Your task to perform on an android device: Open settings on Google Maps Image 0: 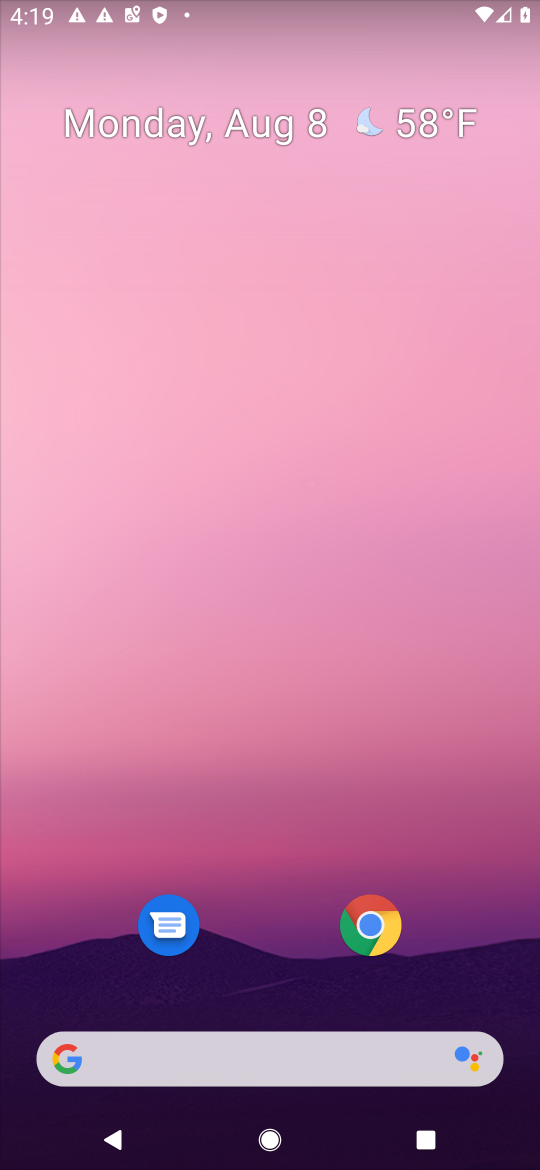
Step 0: drag from (279, 823) to (229, 170)
Your task to perform on an android device: Open settings on Google Maps Image 1: 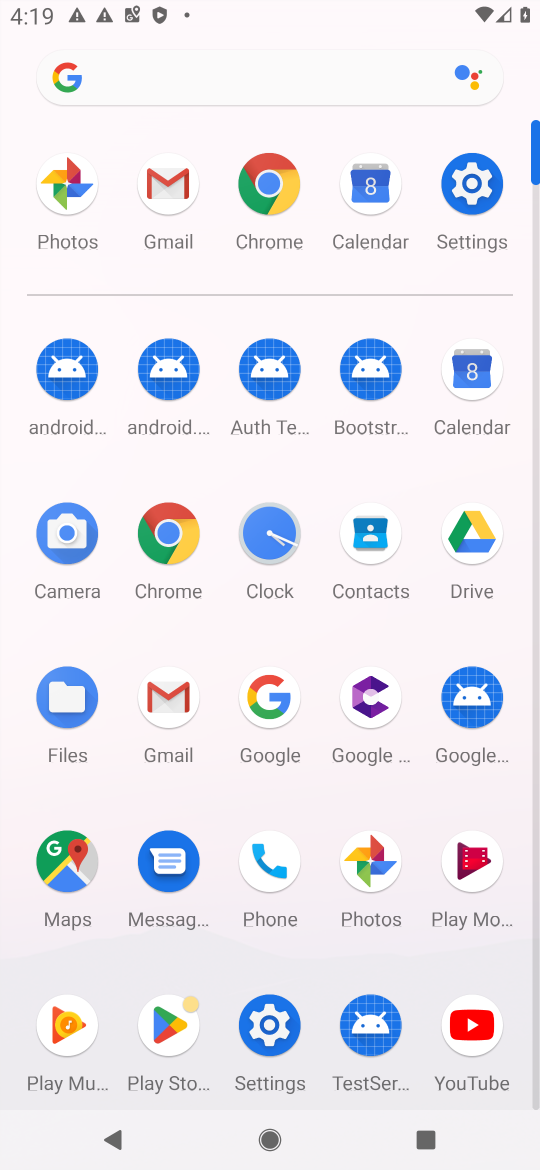
Step 1: click (78, 862)
Your task to perform on an android device: Open settings on Google Maps Image 2: 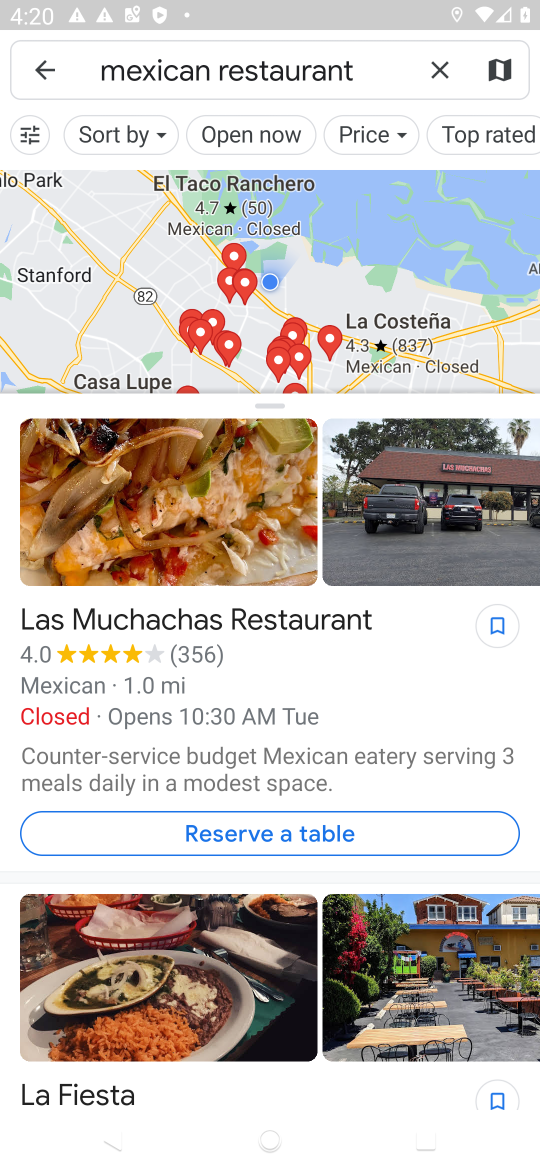
Step 2: click (47, 76)
Your task to perform on an android device: Open settings on Google Maps Image 3: 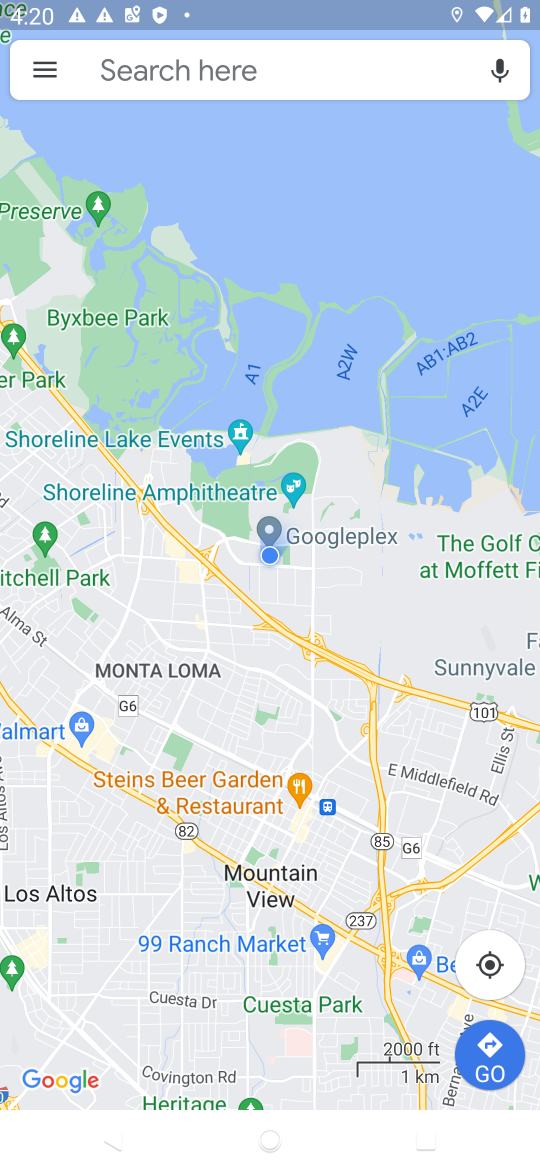
Step 3: click (46, 75)
Your task to perform on an android device: Open settings on Google Maps Image 4: 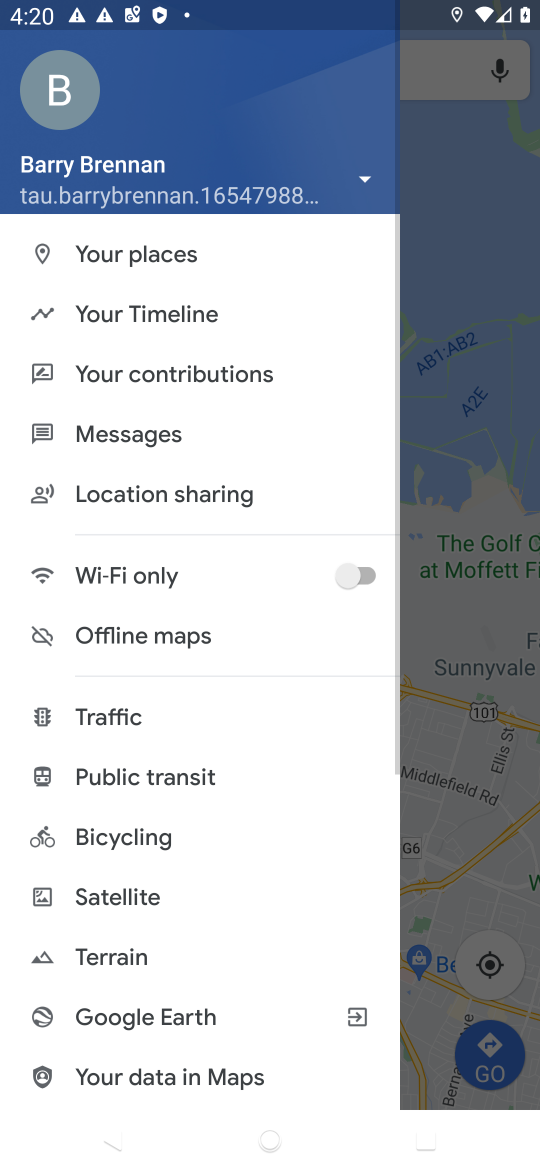
Step 4: drag from (137, 1040) to (178, 459)
Your task to perform on an android device: Open settings on Google Maps Image 5: 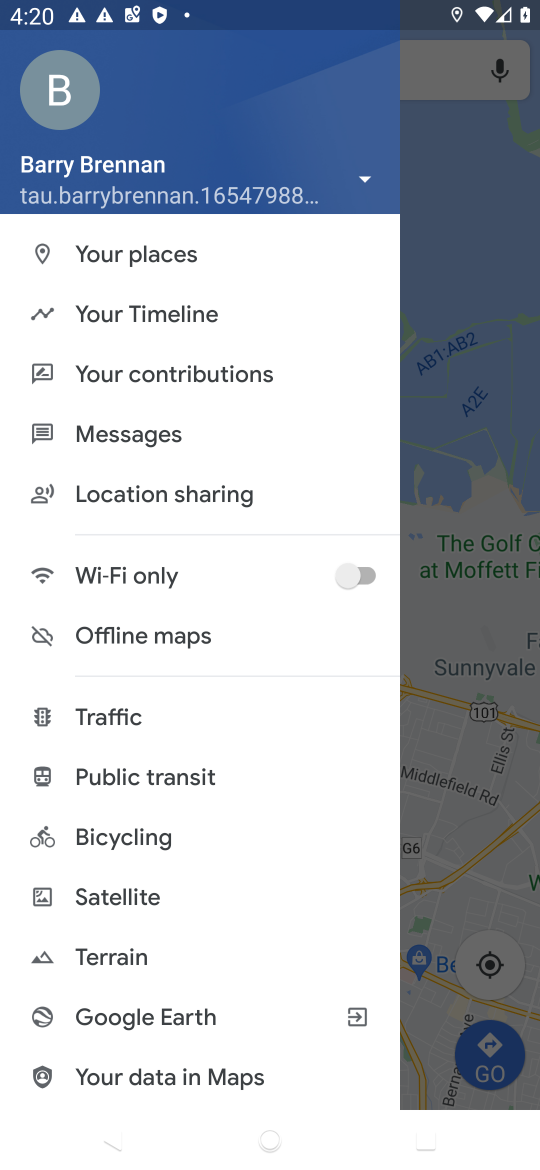
Step 5: drag from (159, 998) to (117, 557)
Your task to perform on an android device: Open settings on Google Maps Image 6: 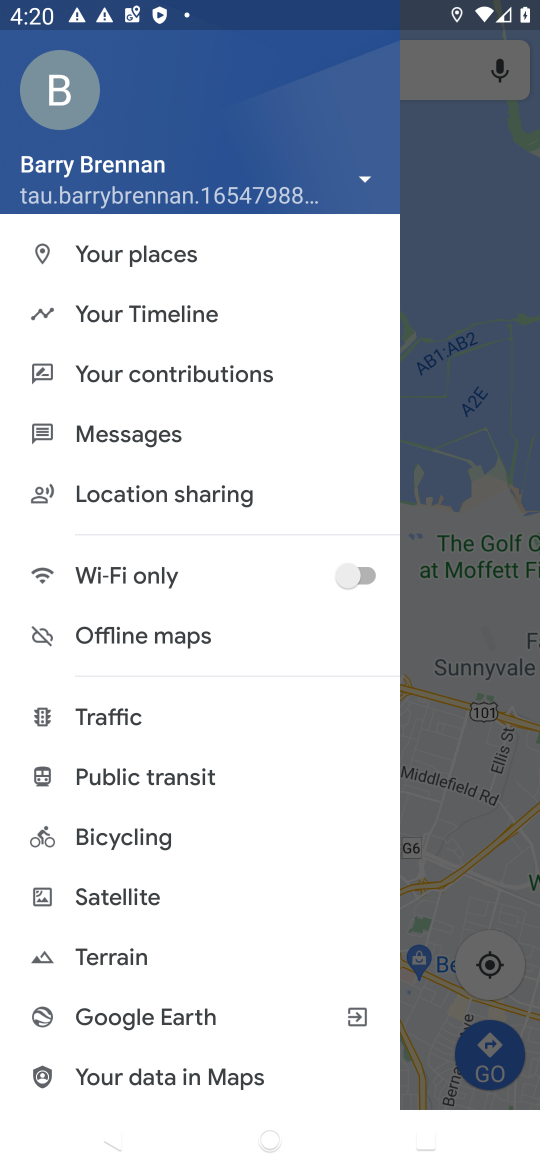
Step 6: drag from (147, 1033) to (104, 713)
Your task to perform on an android device: Open settings on Google Maps Image 7: 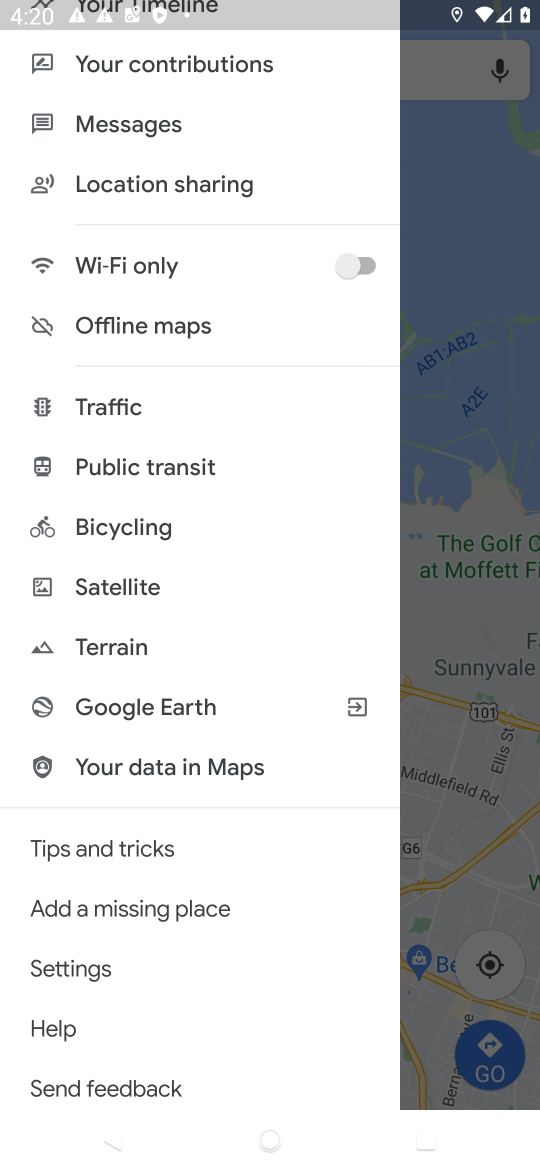
Step 7: click (87, 976)
Your task to perform on an android device: Open settings on Google Maps Image 8: 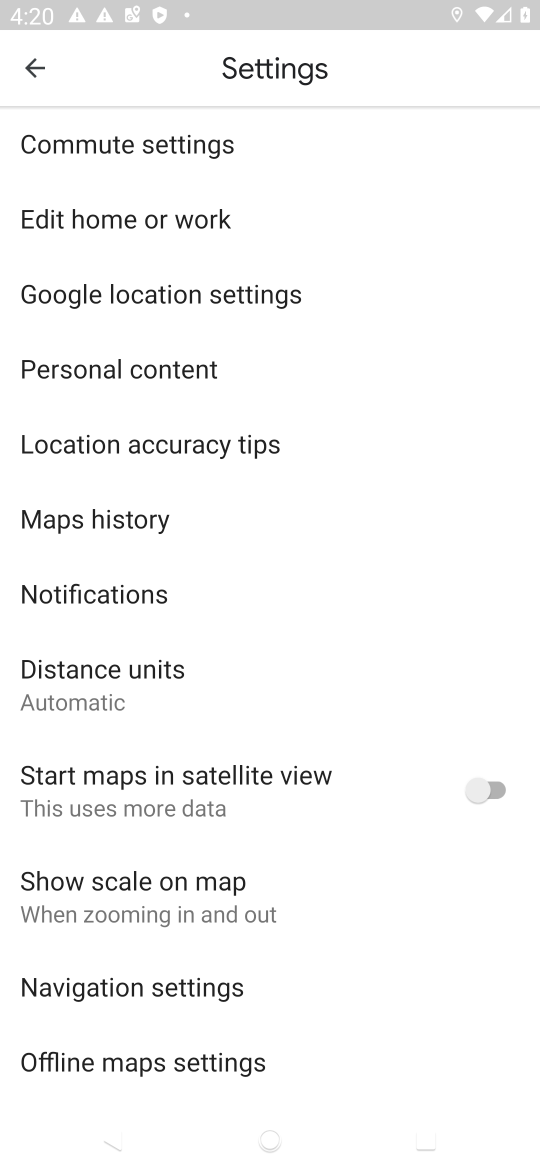
Step 8: task complete